Your task to perform on an android device: find snoozed emails in the gmail app Image 0: 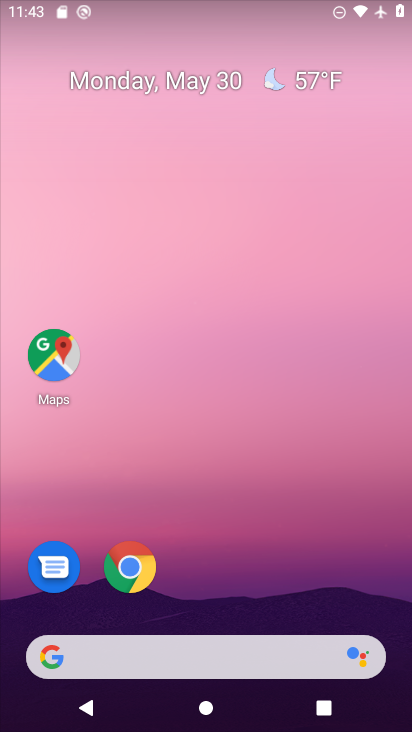
Step 0: drag from (215, 427) to (215, 178)
Your task to perform on an android device: find snoozed emails in the gmail app Image 1: 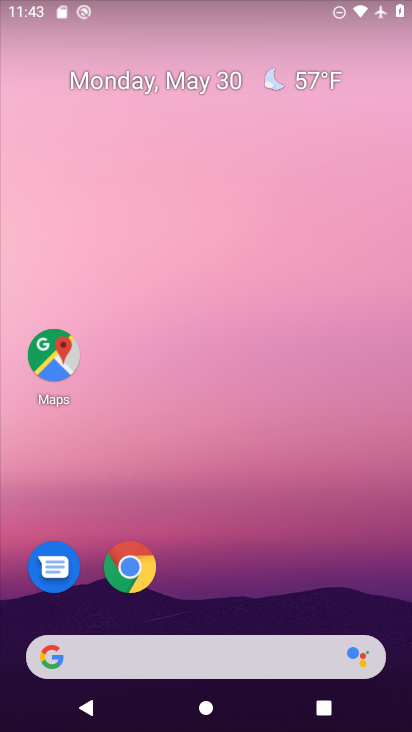
Step 1: drag from (222, 598) to (236, 181)
Your task to perform on an android device: find snoozed emails in the gmail app Image 2: 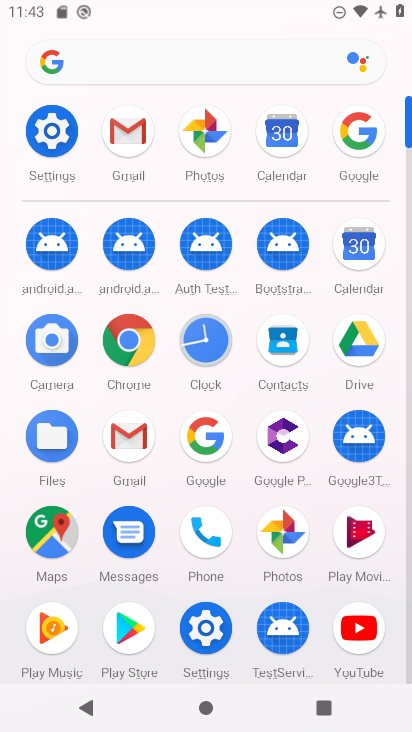
Step 2: click (128, 128)
Your task to perform on an android device: find snoozed emails in the gmail app Image 3: 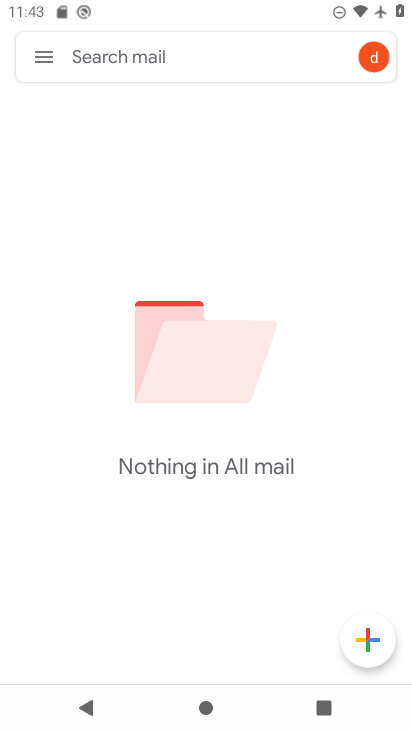
Step 3: click (33, 66)
Your task to perform on an android device: find snoozed emails in the gmail app Image 4: 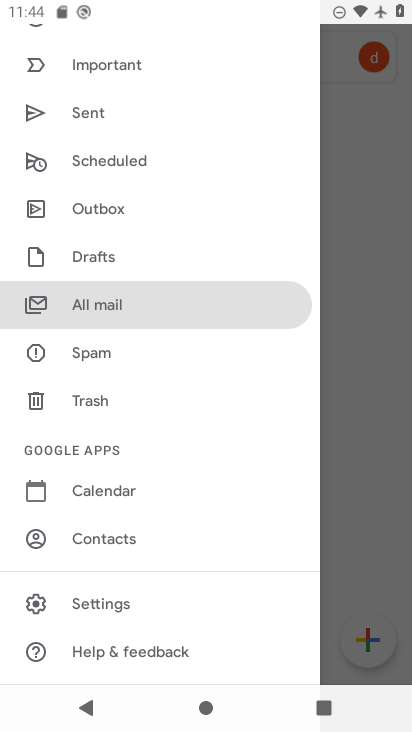
Step 4: drag from (171, 204) to (171, 478)
Your task to perform on an android device: find snoozed emails in the gmail app Image 5: 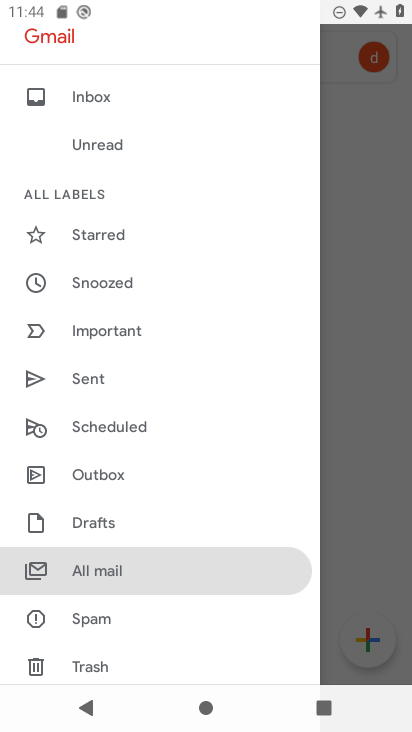
Step 5: click (120, 290)
Your task to perform on an android device: find snoozed emails in the gmail app Image 6: 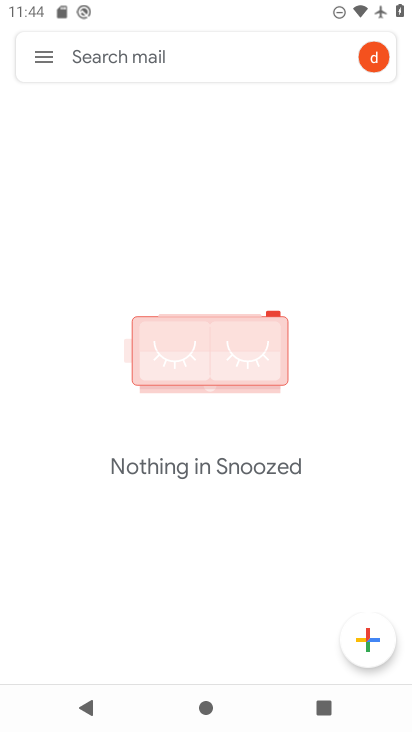
Step 6: task complete